Your task to perform on an android device: Clear all items from cart on walmart. Search for "bose soundlink" on walmart, select the first entry, add it to the cart, then select checkout. Image 0: 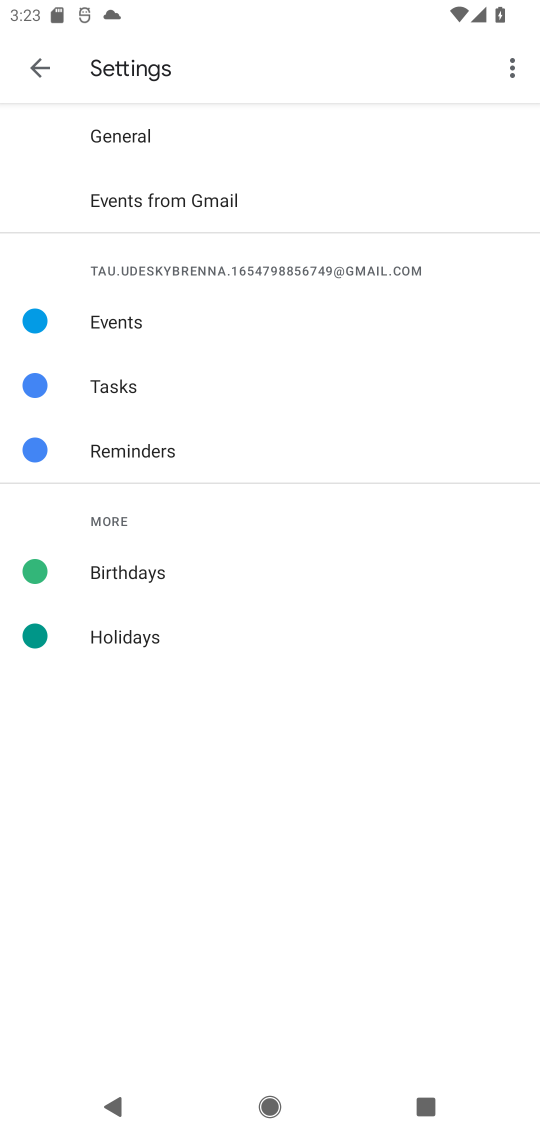
Step 0: press home button
Your task to perform on an android device: Clear all items from cart on walmart. Search for "bose soundlink" on walmart, select the first entry, add it to the cart, then select checkout. Image 1: 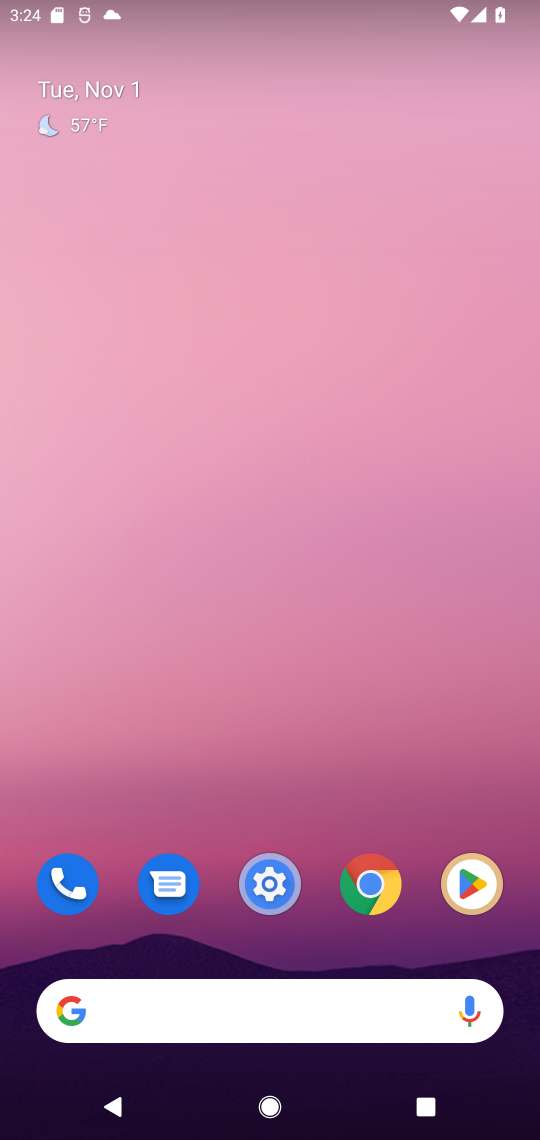
Step 1: click (98, 1013)
Your task to perform on an android device: Clear all items from cart on walmart. Search for "bose soundlink" on walmart, select the first entry, add it to the cart, then select checkout. Image 2: 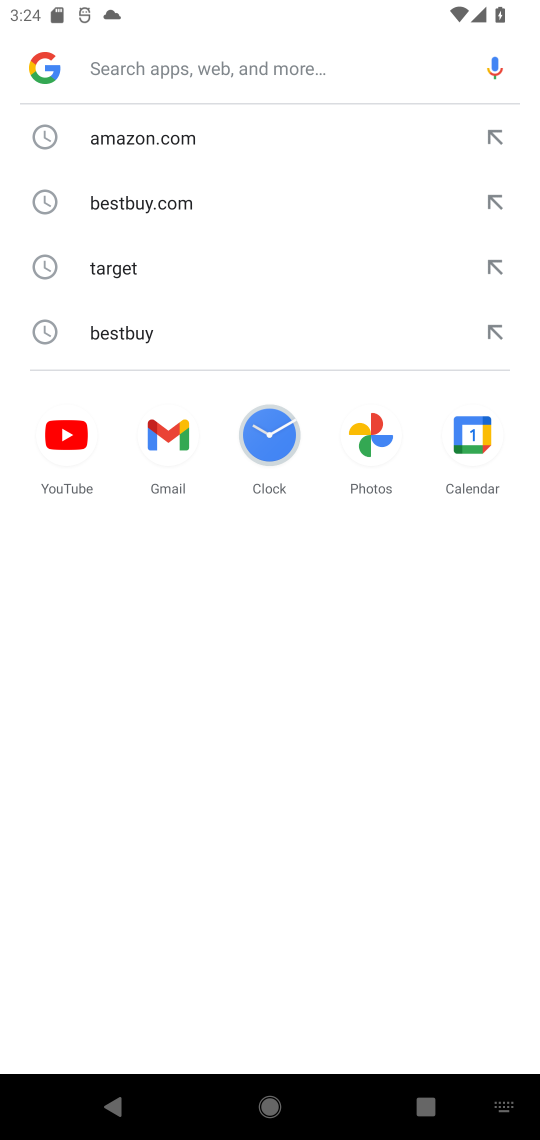
Step 2: type "walmart"
Your task to perform on an android device: Clear all items from cart on walmart. Search for "bose soundlink" on walmart, select the first entry, add it to the cart, then select checkout. Image 3: 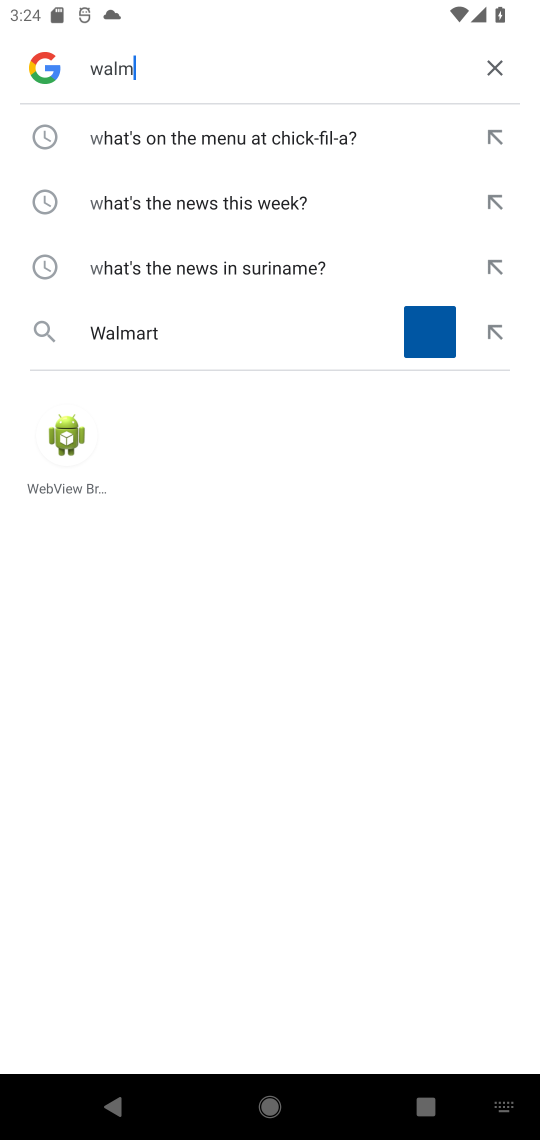
Step 3: press enter
Your task to perform on an android device: Clear all items from cart on walmart. Search for "bose soundlink" on walmart, select the first entry, add it to the cart, then select checkout. Image 4: 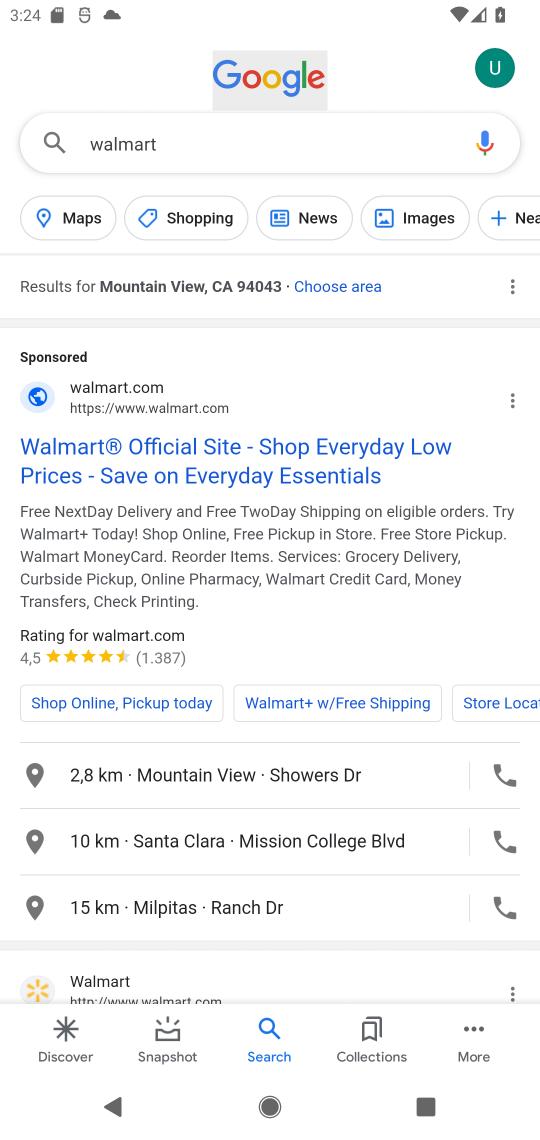
Step 4: click (146, 471)
Your task to perform on an android device: Clear all items from cart on walmart. Search for "bose soundlink" on walmart, select the first entry, add it to the cart, then select checkout. Image 5: 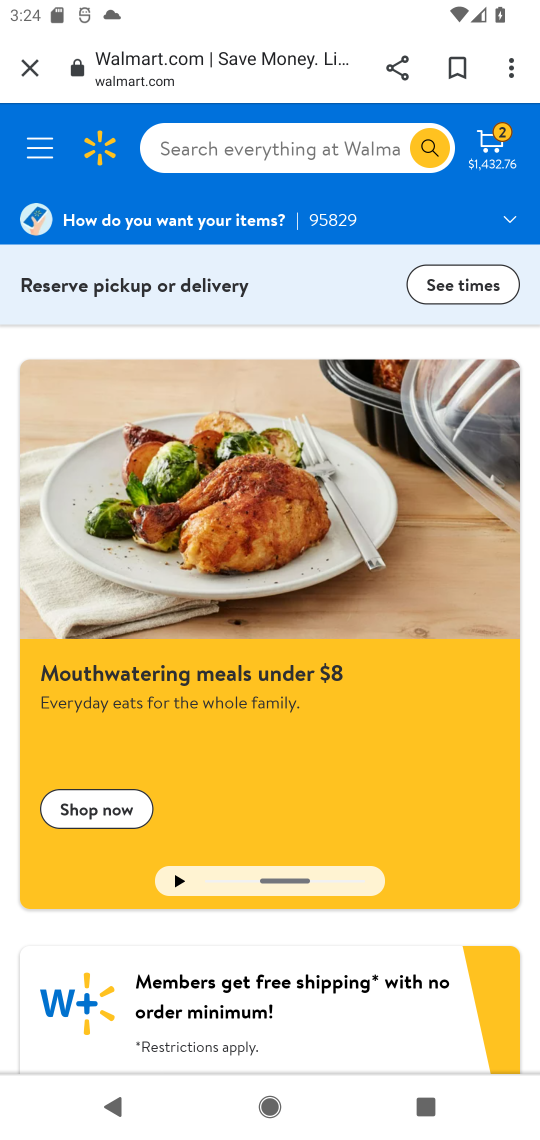
Step 5: click (483, 134)
Your task to perform on an android device: Clear all items from cart on walmart. Search for "bose soundlink" on walmart, select the first entry, add it to the cart, then select checkout. Image 6: 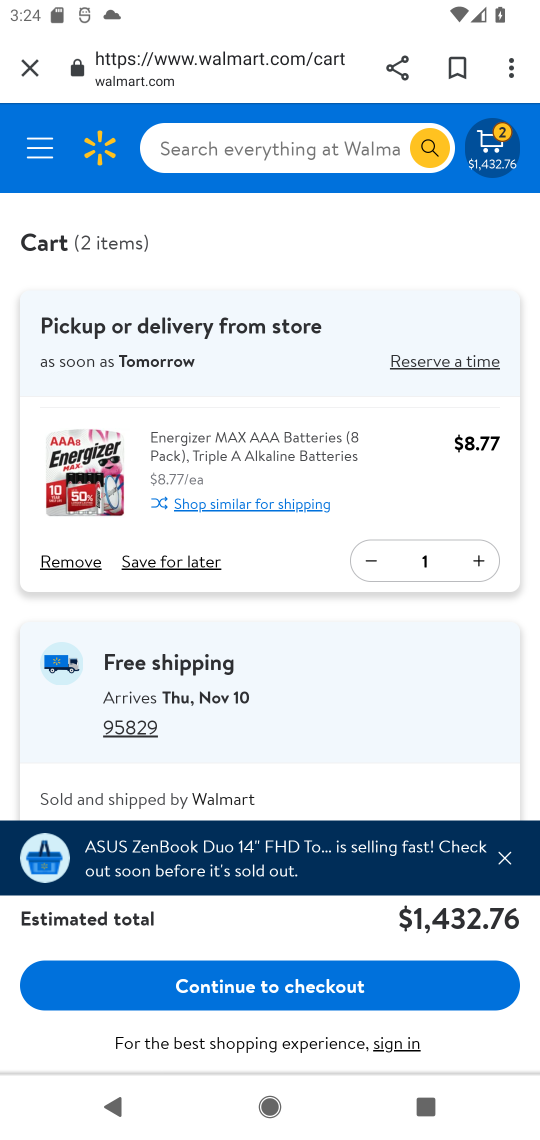
Step 6: click (488, 137)
Your task to perform on an android device: Clear all items from cart on walmart. Search for "bose soundlink" on walmart, select the first entry, add it to the cart, then select checkout. Image 7: 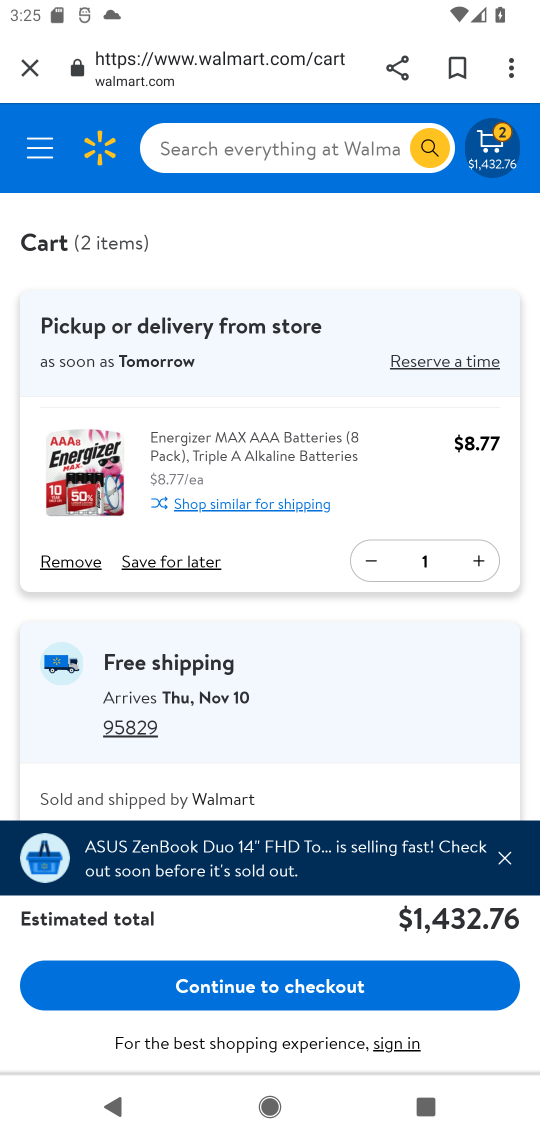
Step 7: click (483, 139)
Your task to perform on an android device: Clear all items from cart on walmart. Search for "bose soundlink" on walmart, select the first entry, add it to the cart, then select checkout. Image 8: 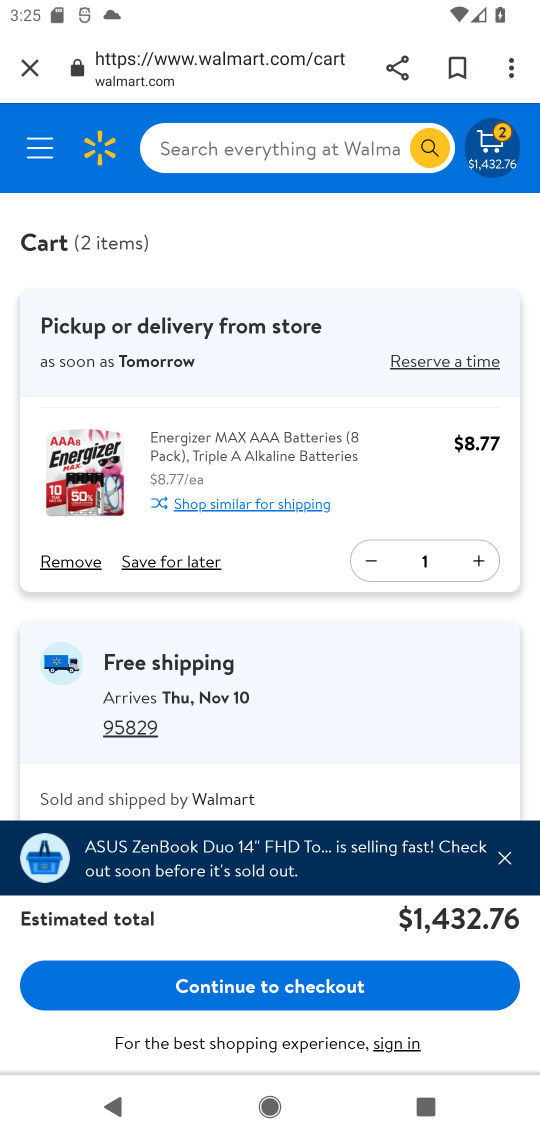
Step 8: click (498, 136)
Your task to perform on an android device: Clear all items from cart on walmart. Search for "bose soundlink" on walmart, select the first entry, add it to the cart, then select checkout. Image 9: 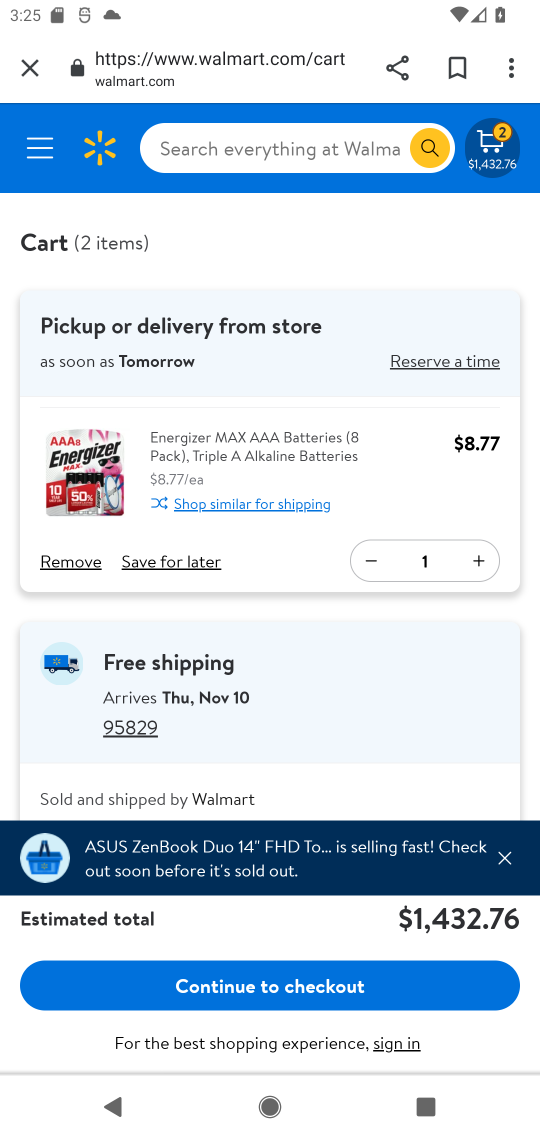
Step 9: click (500, 857)
Your task to perform on an android device: Clear all items from cart on walmart. Search for "bose soundlink" on walmart, select the first entry, add it to the cart, then select checkout. Image 10: 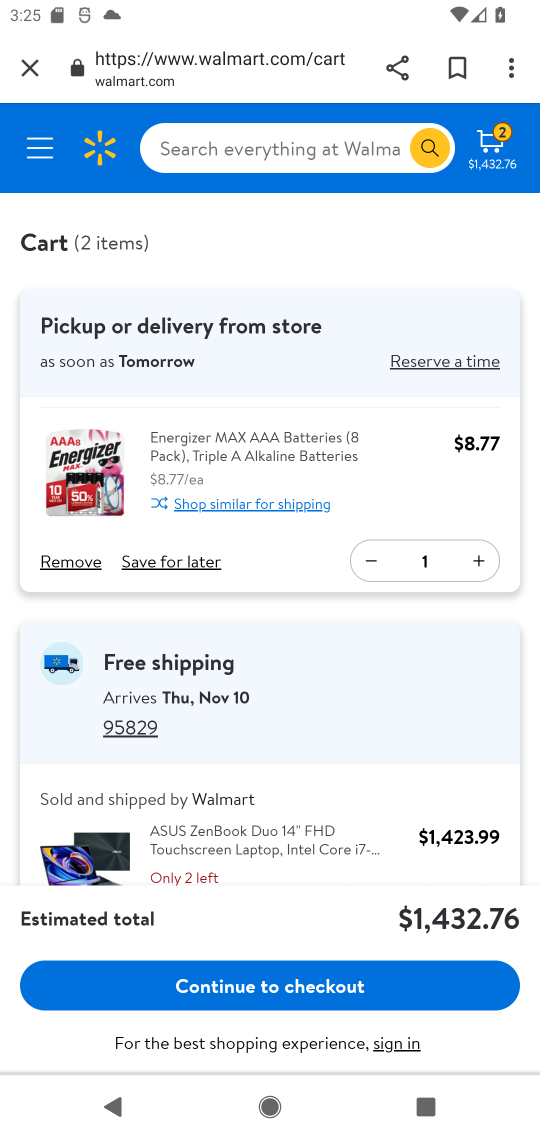
Step 10: click (61, 558)
Your task to perform on an android device: Clear all items from cart on walmart. Search for "bose soundlink" on walmart, select the first entry, add it to the cart, then select checkout. Image 11: 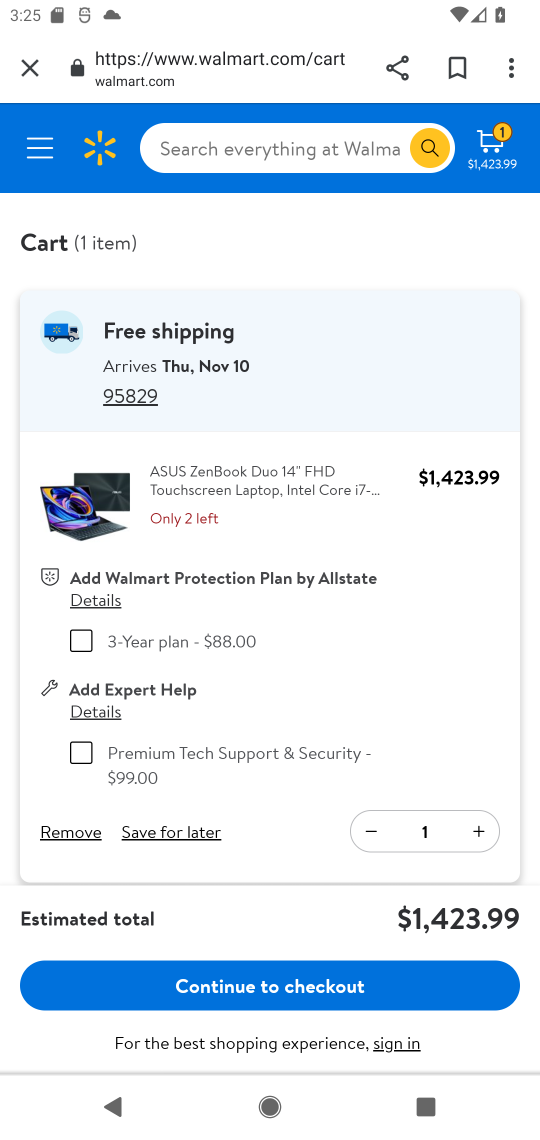
Step 11: click (45, 827)
Your task to perform on an android device: Clear all items from cart on walmart. Search for "bose soundlink" on walmart, select the first entry, add it to the cart, then select checkout. Image 12: 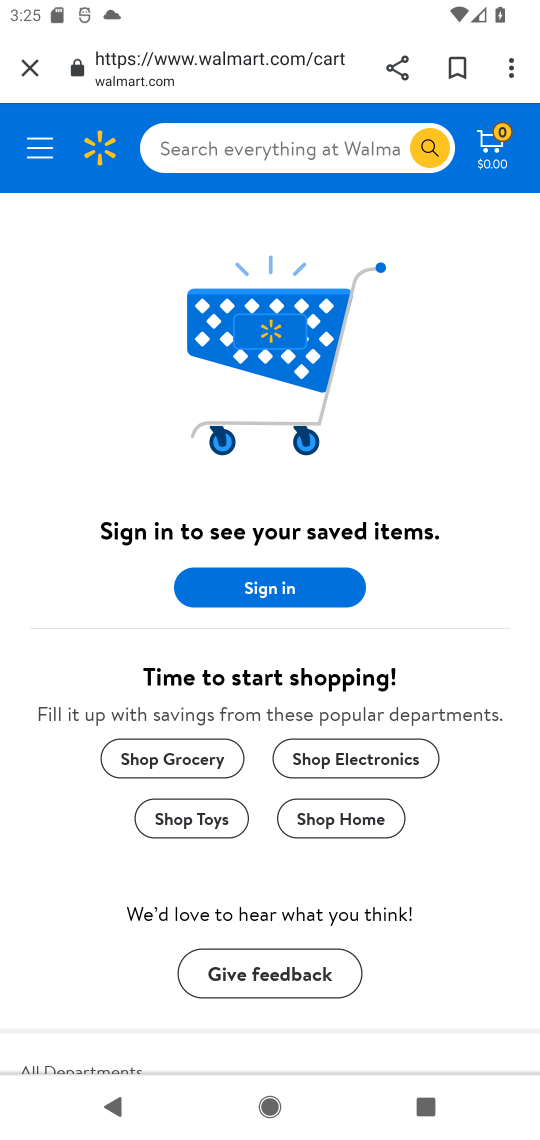
Step 12: click (206, 144)
Your task to perform on an android device: Clear all items from cart on walmart. Search for "bose soundlink" on walmart, select the first entry, add it to the cart, then select checkout. Image 13: 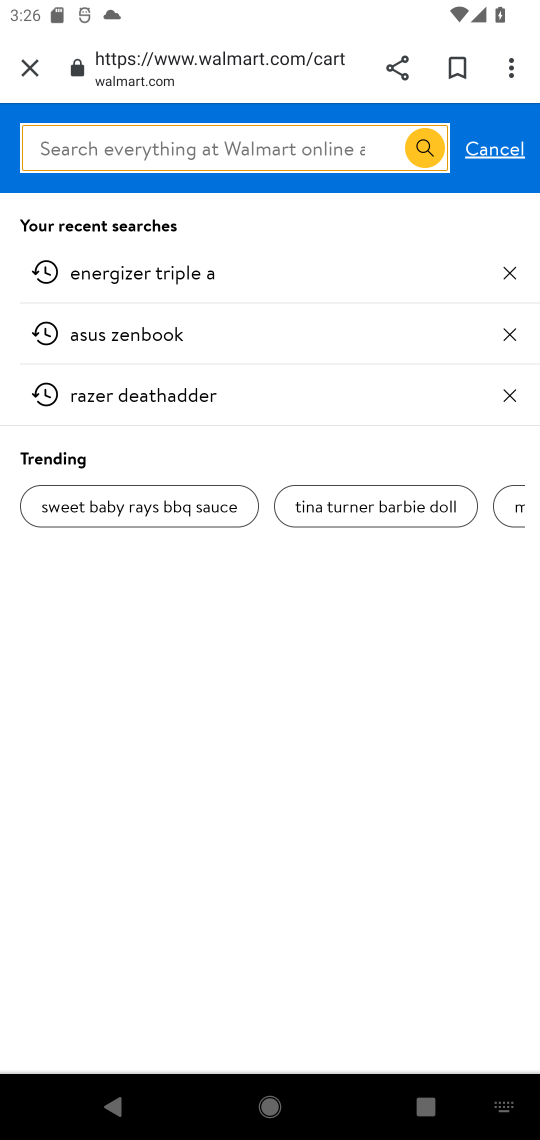
Step 13: type "bose soundlink"
Your task to perform on an android device: Clear all items from cart on walmart. Search for "bose soundlink" on walmart, select the first entry, add it to the cart, then select checkout. Image 14: 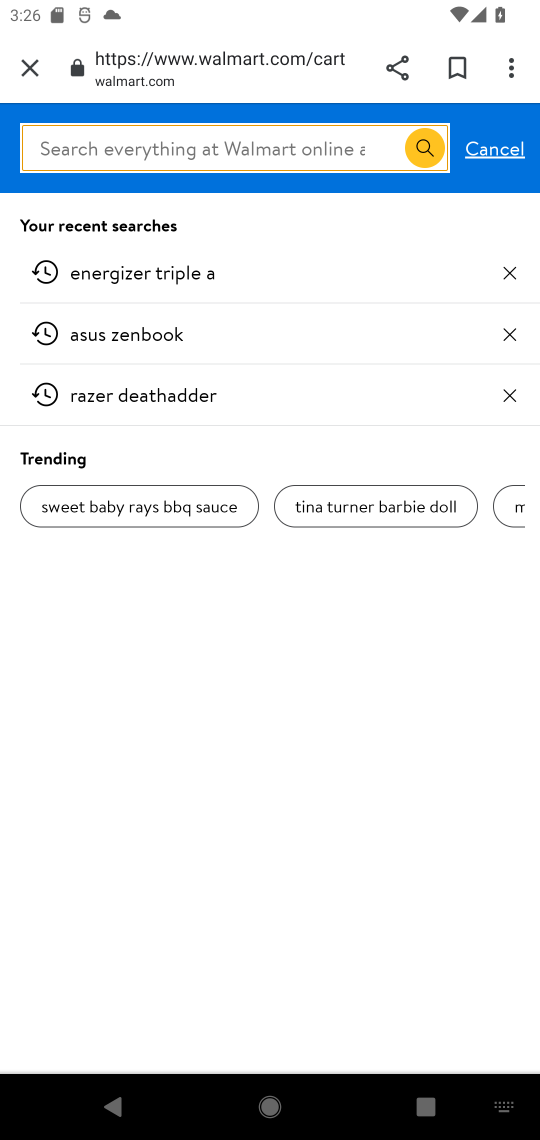
Step 14: press enter
Your task to perform on an android device: Clear all items from cart on walmart. Search for "bose soundlink" on walmart, select the first entry, add it to the cart, then select checkout. Image 15: 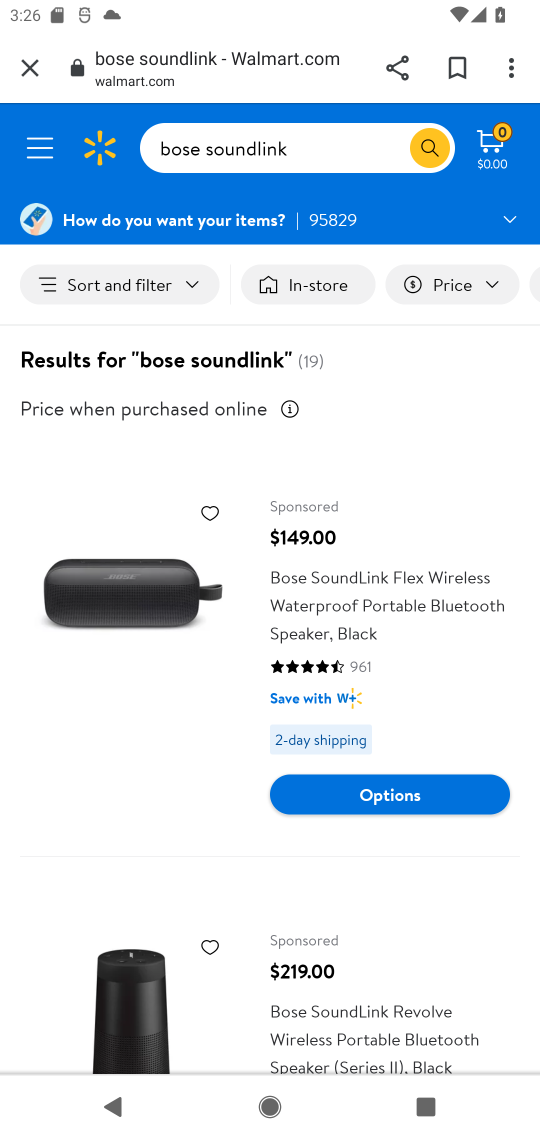
Step 15: click (351, 592)
Your task to perform on an android device: Clear all items from cart on walmart. Search for "bose soundlink" on walmart, select the first entry, add it to the cart, then select checkout. Image 16: 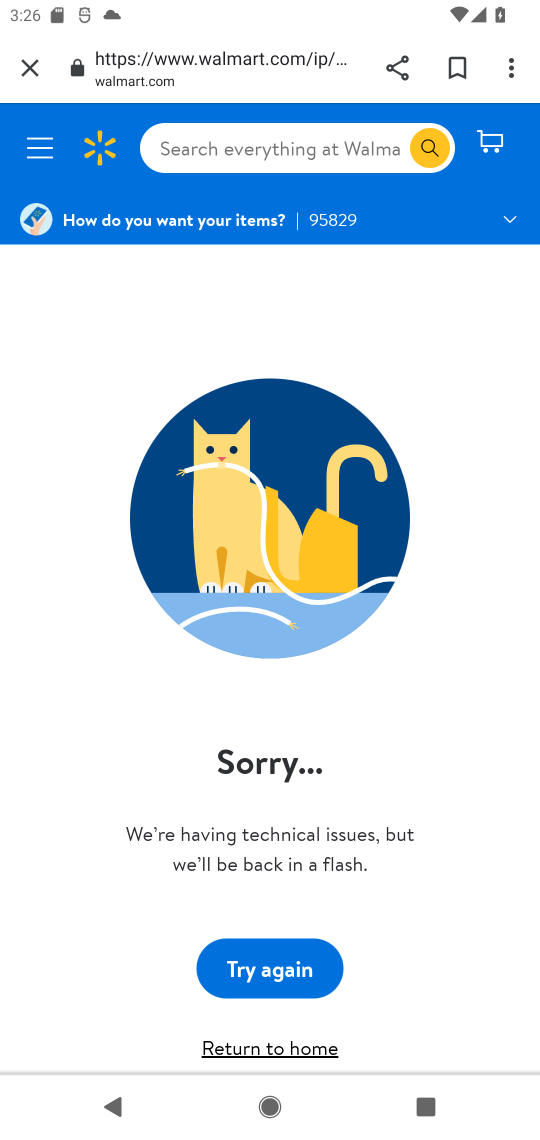
Step 16: task complete